Your task to perform on an android device: open app "Reddit" (install if not already installed) and go to login screen Image 0: 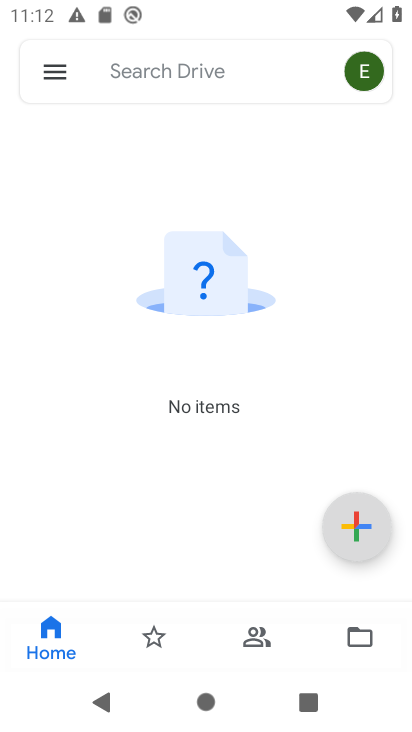
Step 0: press back button
Your task to perform on an android device: open app "Reddit" (install if not already installed) and go to login screen Image 1: 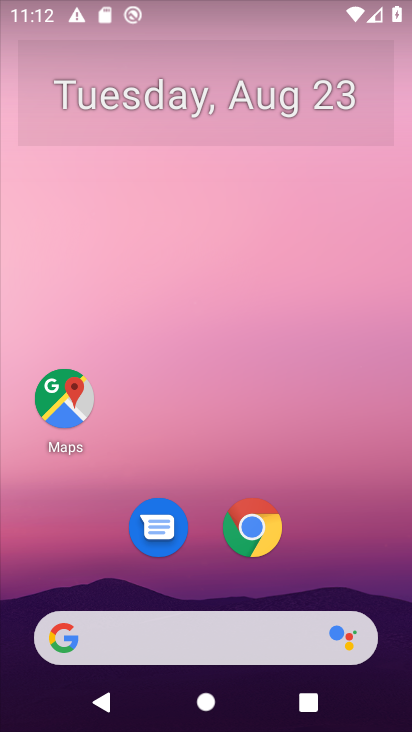
Step 1: drag from (213, 570) to (296, 63)
Your task to perform on an android device: open app "Reddit" (install if not already installed) and go to login screen Image 2: 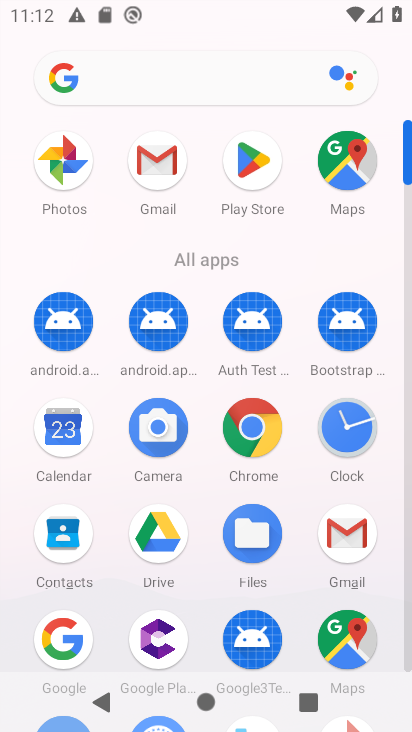
Step 2: click (245, 180)
Your task to perform on an android device: open app "Reddit" (install if not already installed) and go to login screen Image 3: 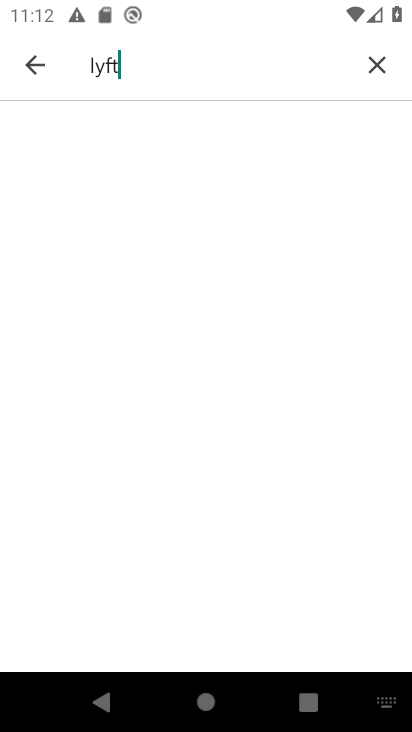
Step 3: click (377, 70)
Your task to perform on an android device: open app "Reddit" (install if not already installed) and go to login screen Image 4: 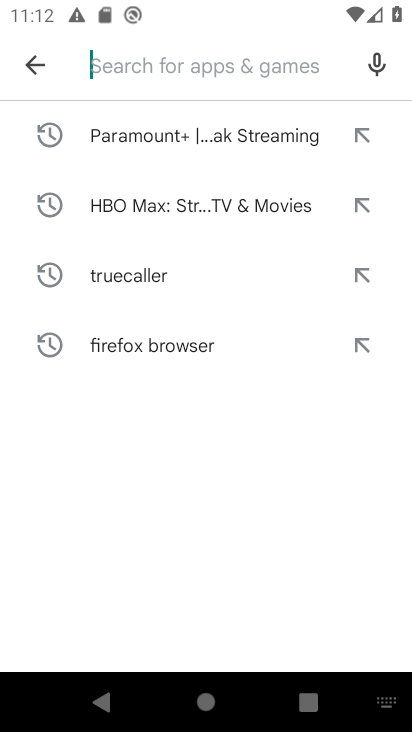
Step 4: click (159, 69)
Your task to perform on an android device: open app "Reddit" (install if not already installed) and go to login screen Image 5: 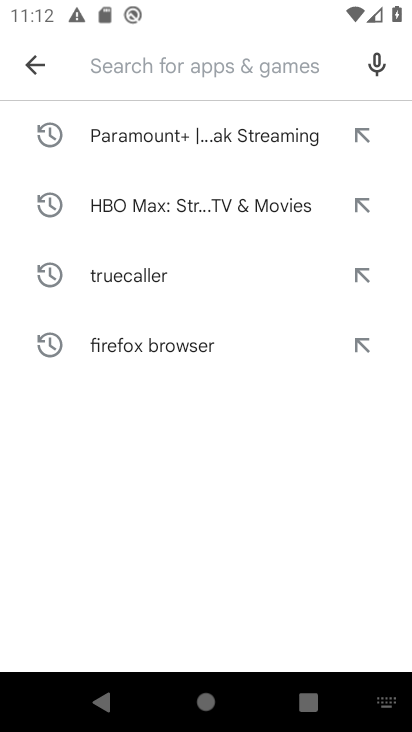
Step 5: type "Reddit"
Your task to perform on an android device: open app "Reddit" (install if not already installed) and go to login screen Image 6: 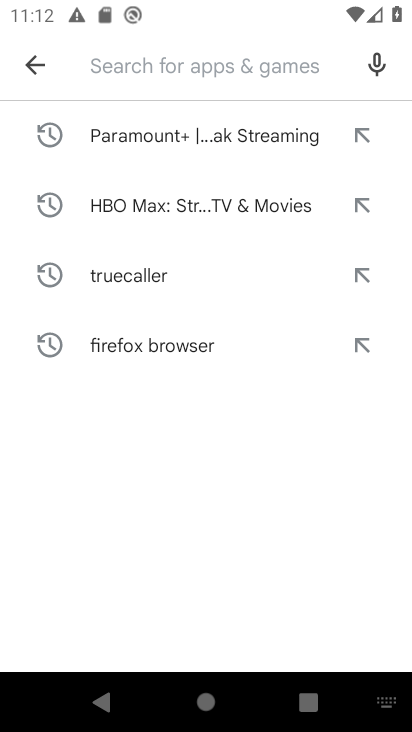
Step 6: click (162, 493)
Your task to perform on an android device: open app "Reddit" (install if not already installed) and go to login screen Image 7: 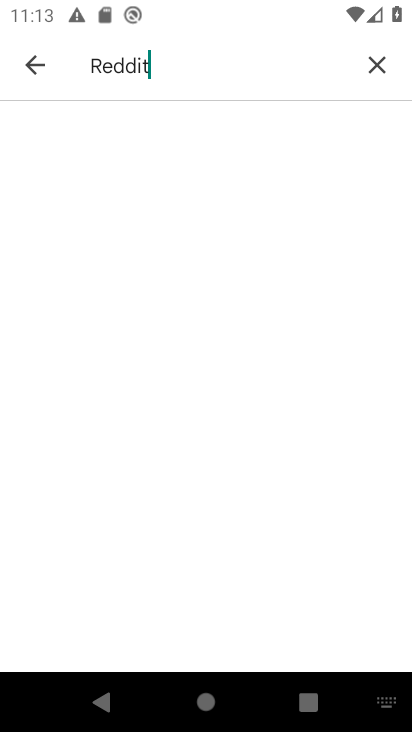
Step 7: task complete